Your task to perform on an android device: Open Google Image 0: 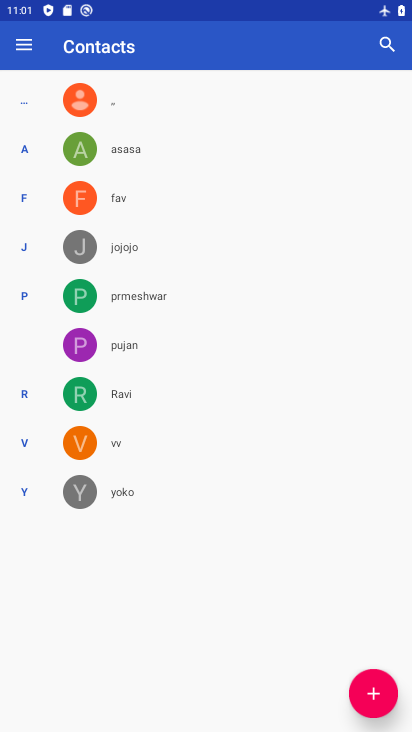
Step 0: press home button
Your task to perform on an android device: Open Google Image 1: 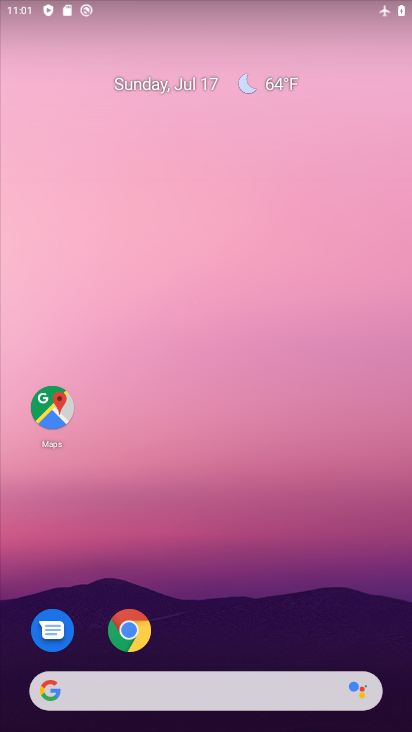
Step 1: click (120, 634)
Your task to perform on an android device: Open Google Image 2: 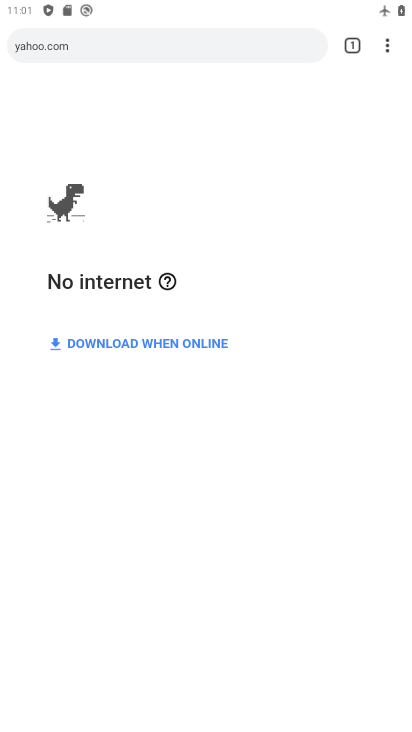
Step 2: click (107, 42)
Your task to perform on an android device: Open Google Image 3: 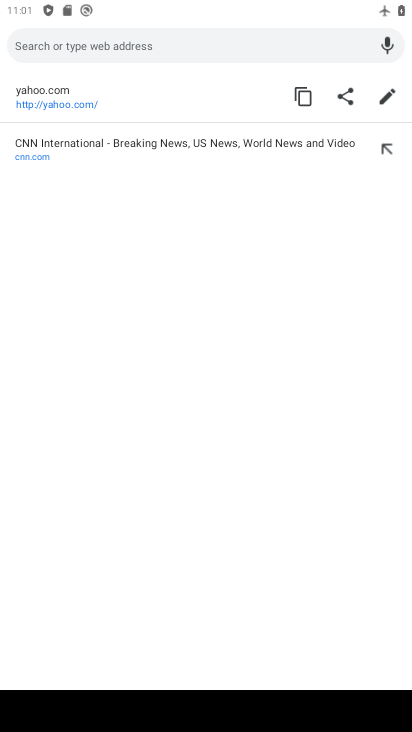
Step 3: task complete